Your task to perform on an android device: Open the stopwatch Image 0: 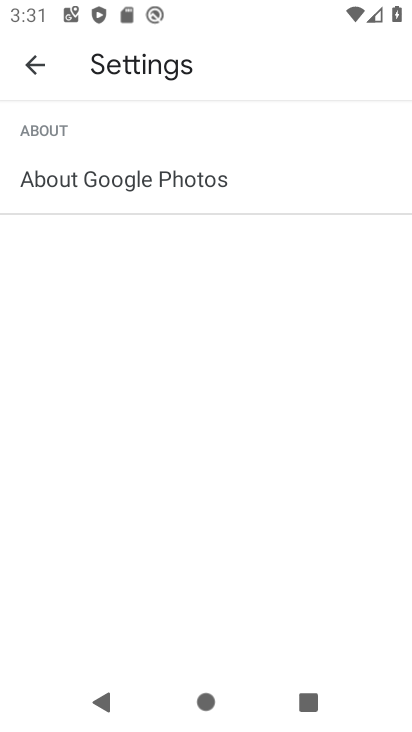
Step 0: press home button
Your task to perform on an android device: Open the stopwatch Image 1: 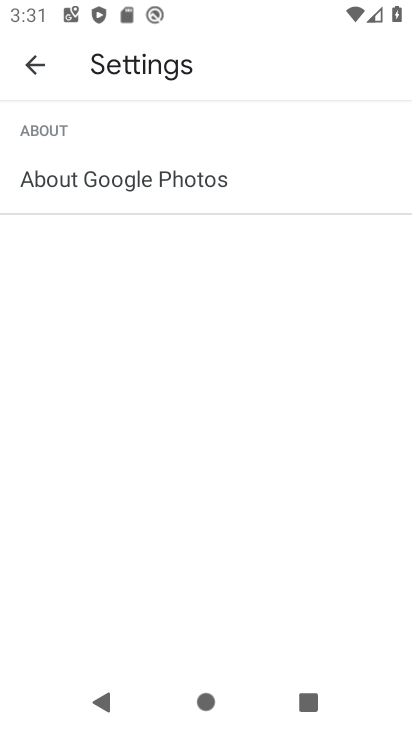
Step 1: press home button
Your task to perform on an android device: Open the stopwatch Image 2: 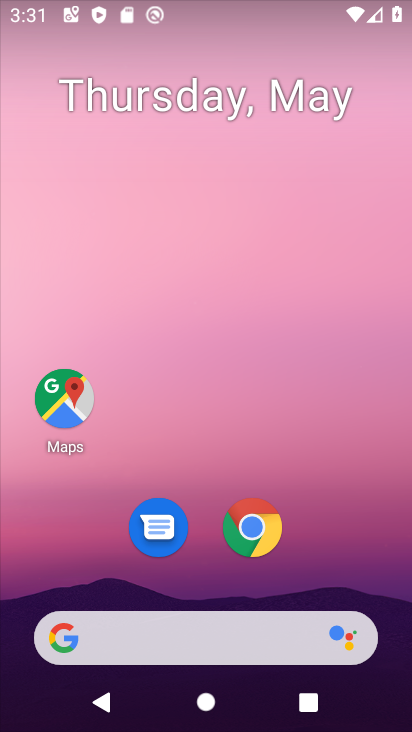
Step 2: drag from (377, 602) to (314, 6)
Your task to perform on an android device: Open the stopwatch Image 3: 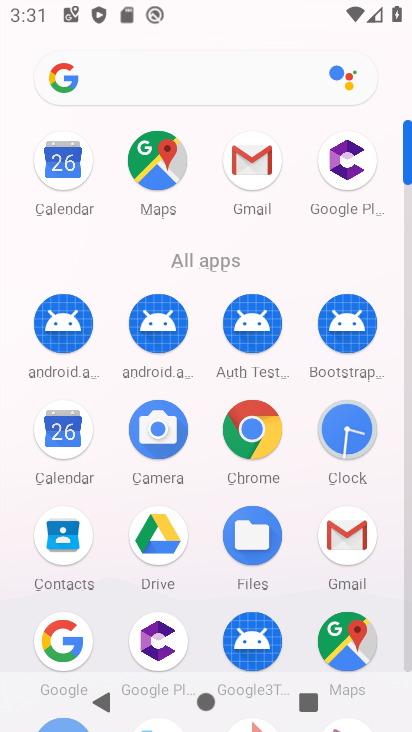
Step 3: click (347, 431)
Your task to perform on an android device: Open the stopwatch Image 4: 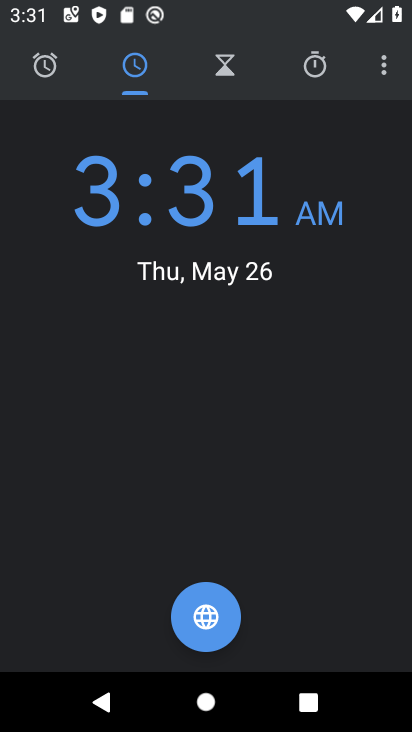
Step 4: click (315, 62)
Your task to perform on an android device: Open the stopwatch Image 5: 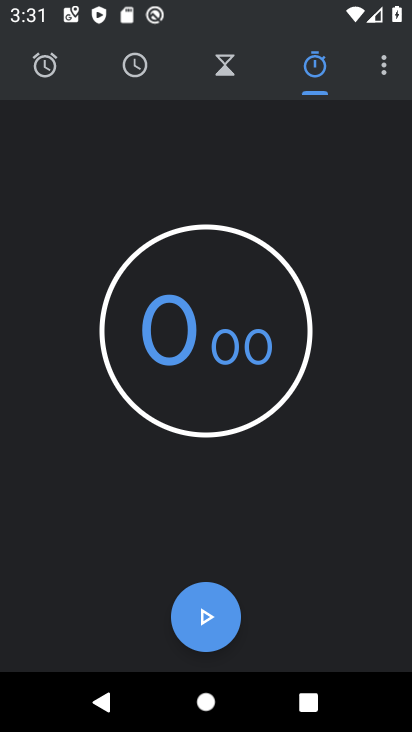
Step 5: task complete